Your task to perform on an android device: choose inbox layout in the gmail app Image 0: 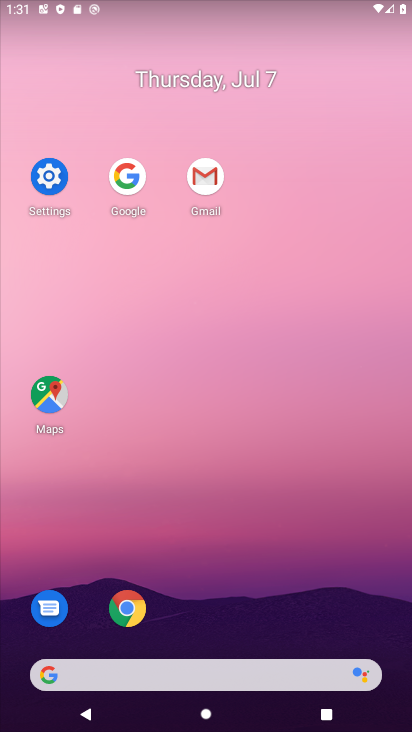
Step 0: click (199, 173)
Your task to perform on an android device: choose inbox layout in the gmail app Image 1: 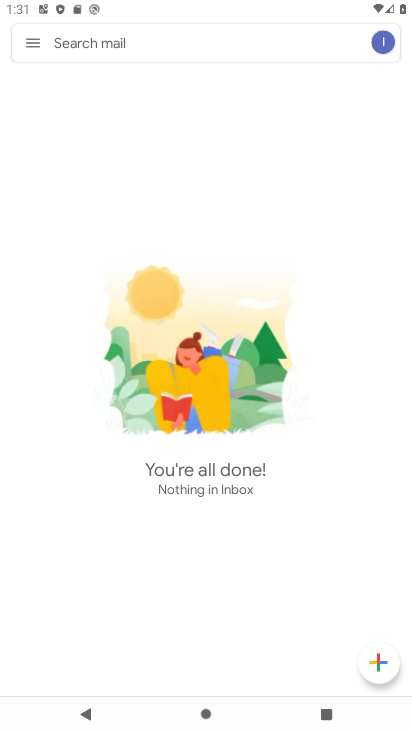
Step 1: click (29, 48)
Your task to perform on an android device: choose inbox layout in the gmail app Image 2: 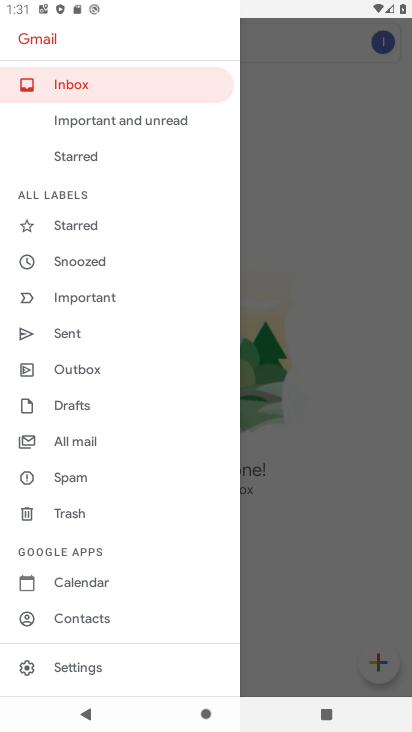
Step 2: click (99, 671)
Your task to perform on an android device: choose inbox layout in the gmail app Image 3: 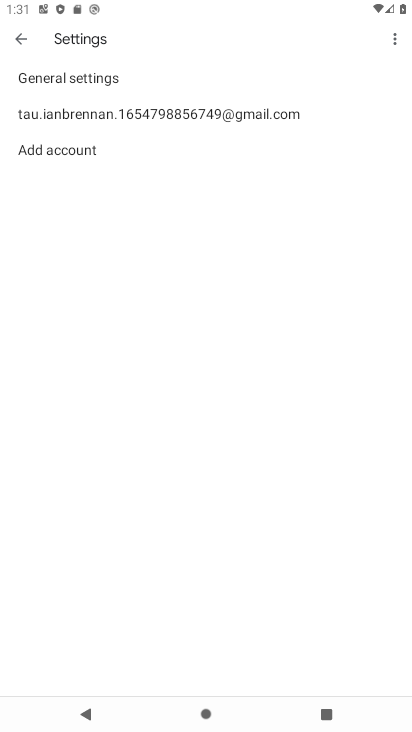
Step 3: click (188, 118)
Your task to perform on an android device: choose inbox layout in the gmail app Image 4: 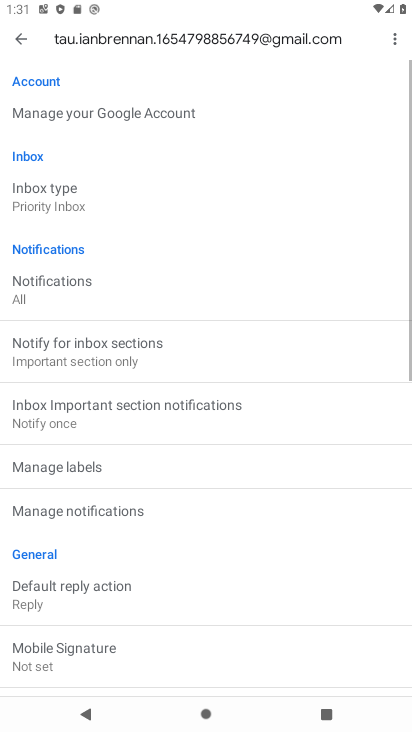
Step 4: click (43, 201)
Your task to perform on an android device: choose inbox layout in the gmail app Image 5: 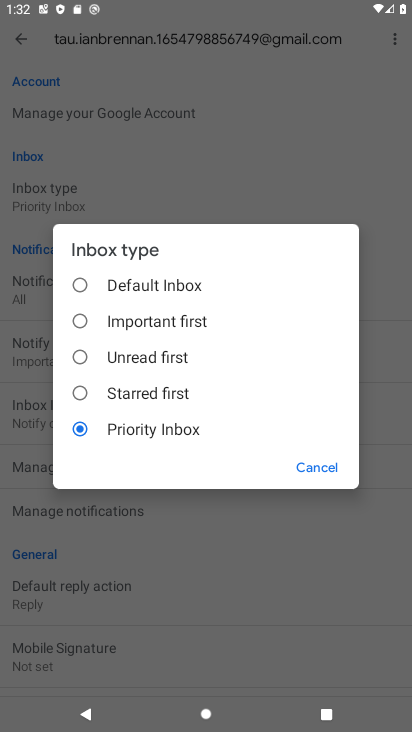
Step 5: task complete